Your task to perform on an android device: turn off sleep mode Image 0: 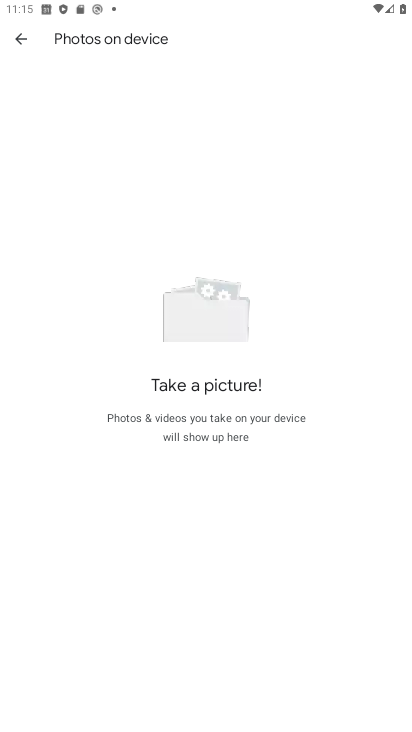
Step 0: press home button
Your task to perform on an android device: turn off sleep mode Image 1: 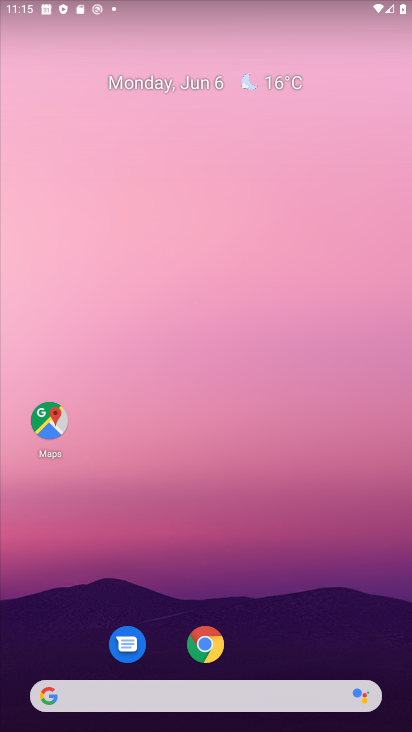
Step 1: drag from (265, 646) to (231, 110)
Your task to perform on an android device: turn off sleep mode Image 2: 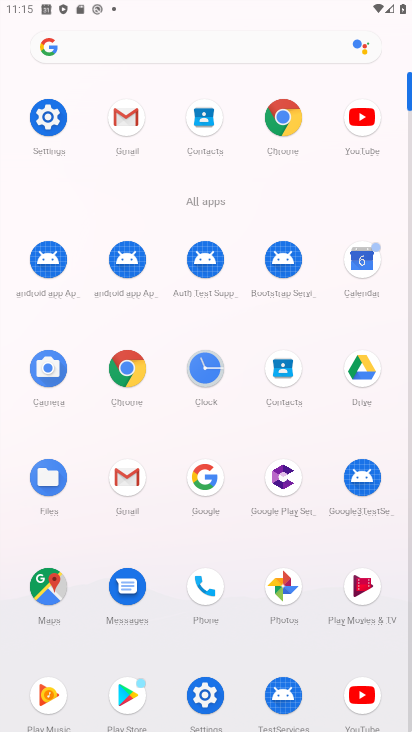
Step 2: click (51, 117)
Your task to perform on an android device: turn off sleep mode Image 3: 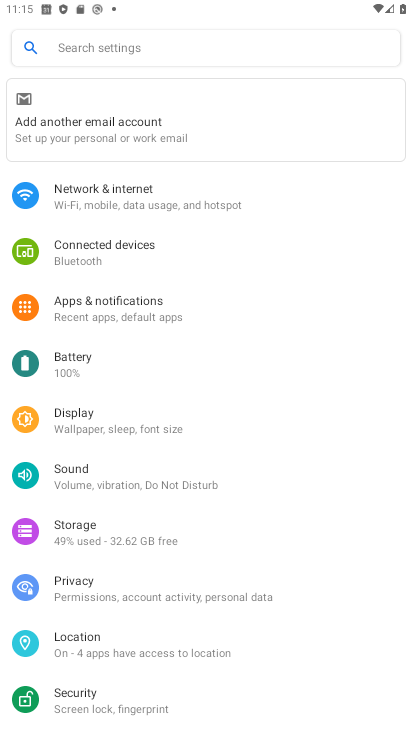
Step 3: click (103, 444)
Your task to perform on an android device: turn off sleep mode Image 4: 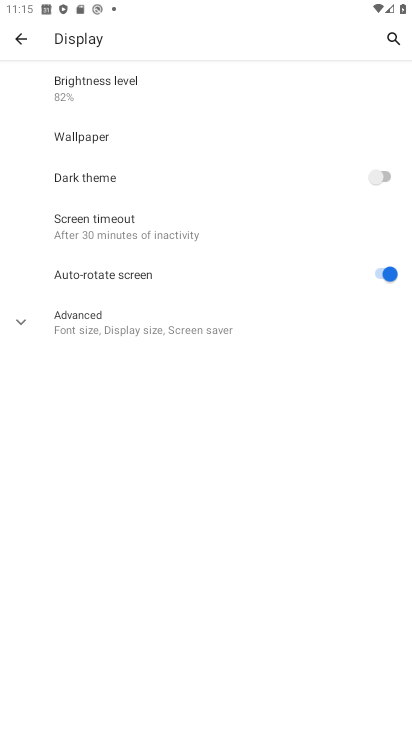
Step 4: click (175, 320)
Your task to perform on an android device: turn off sleep mode Image 5: 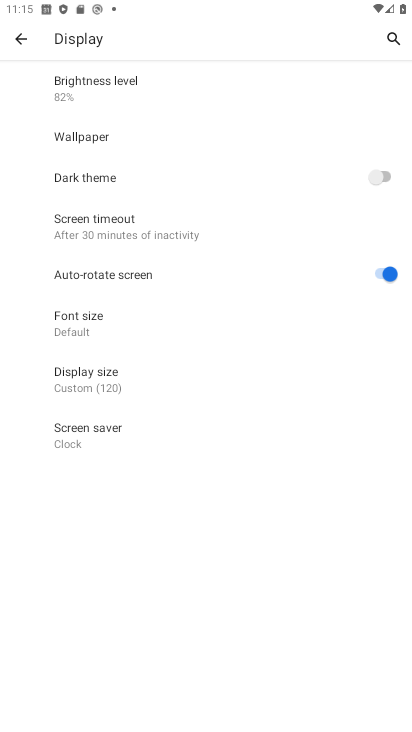
Step 5: task complete